Your task to perform on an android device: open device folders in google photos Image 0: 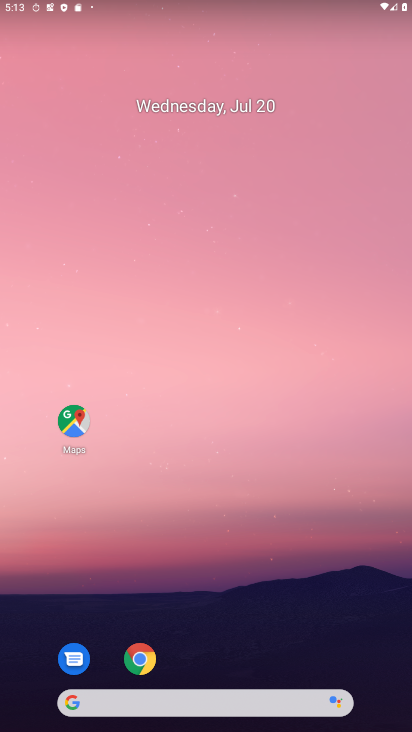
Step 0: drag from (210, 681) to (164, 207)
Your task to perform on an android device: open device folders in google photos Image 1: 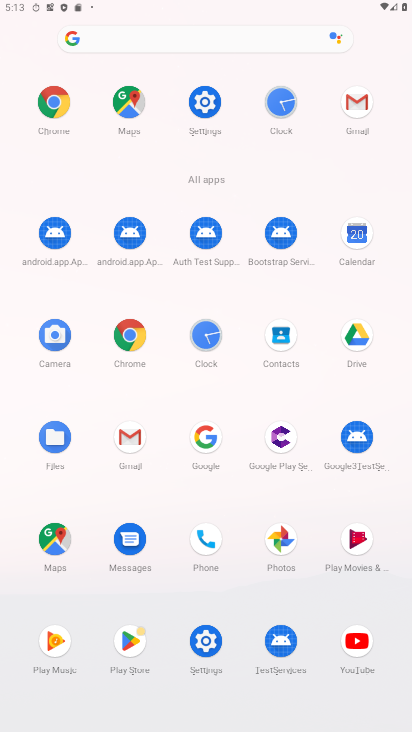
Step 1: click (285, 534)
Your task to perform on an android device: open device folders in google photos Image 2: 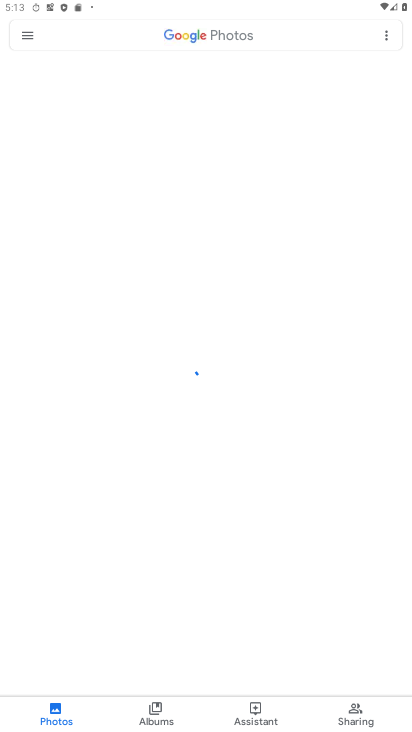
Step 2: click (27, 37)
Your task to perform on an android device: open device folders in google photos Image 3: 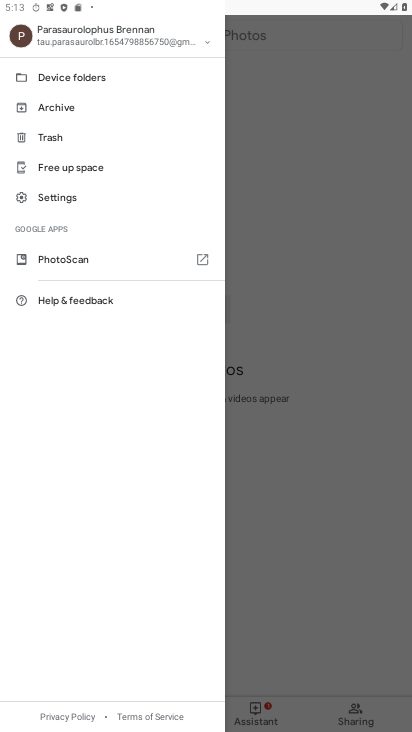
Step 3: click (39, 83)
Your task to perform on an android device: open device folders in google photos Image 4: 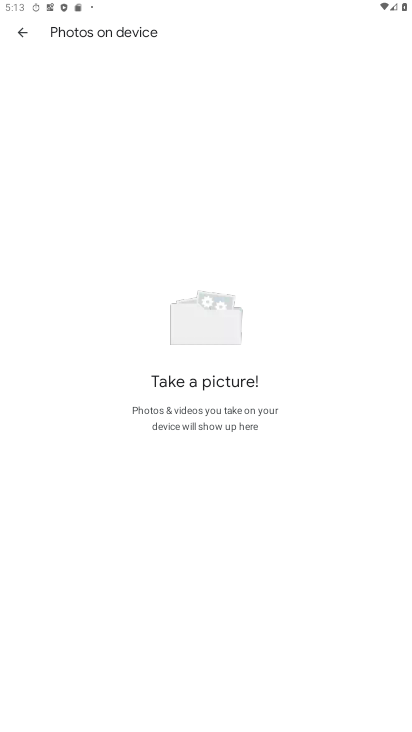
Step 4: task complete